Your task to perform on an android device: allow cookies in the chrome app Image 0: 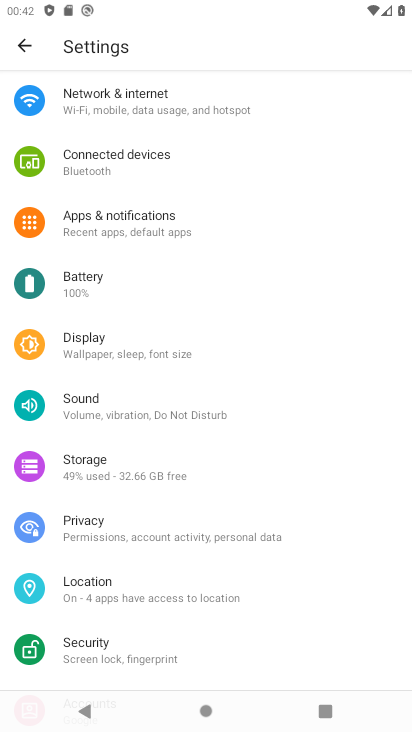
Step 0: press back button
Your task to perform on an android device: allow cookies in the chrome app Image 1: 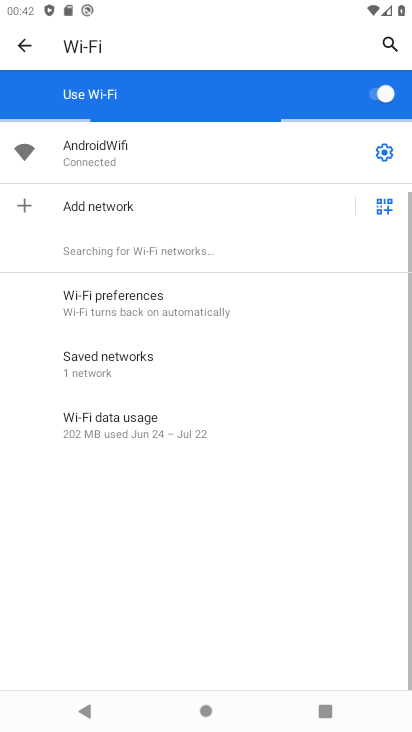
Step 1: press back button
Your task to perform on an android device: allow cookies in the chrome app Image 2: 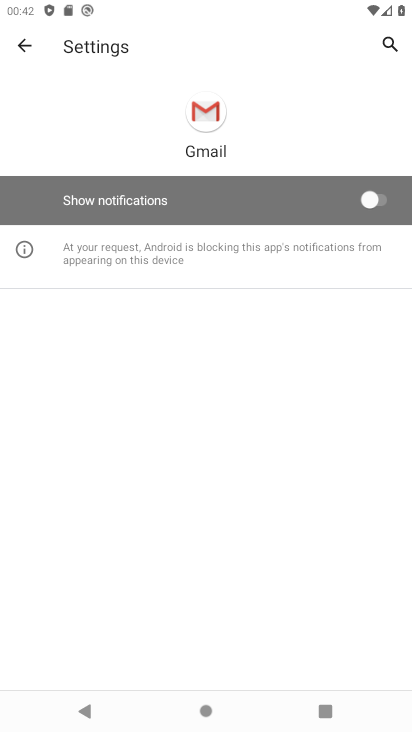
Step 2: press back button
Your task to perform on an android device: allow cookies in the chrome app Image 3: 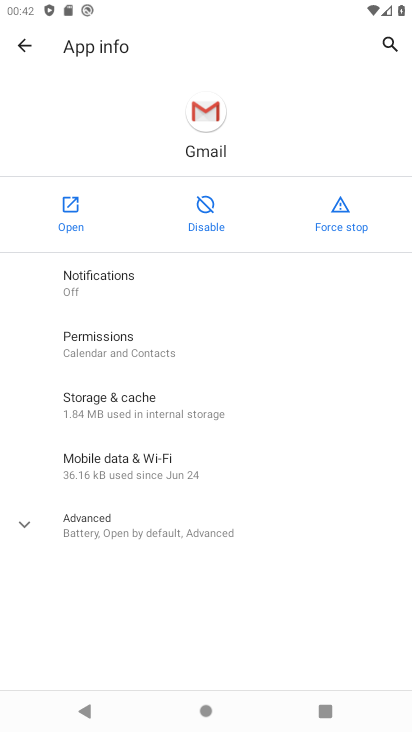
Step 3: press home button
Your task to perform on an android device: allow cookies in the chrome app Image 4: 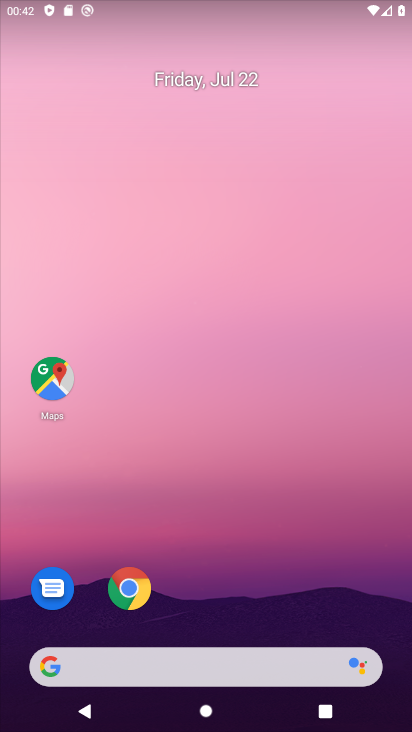
Step 4: click (137, 592)
Your task to perform on an android device: allow cookies in the chrome app Image 5: 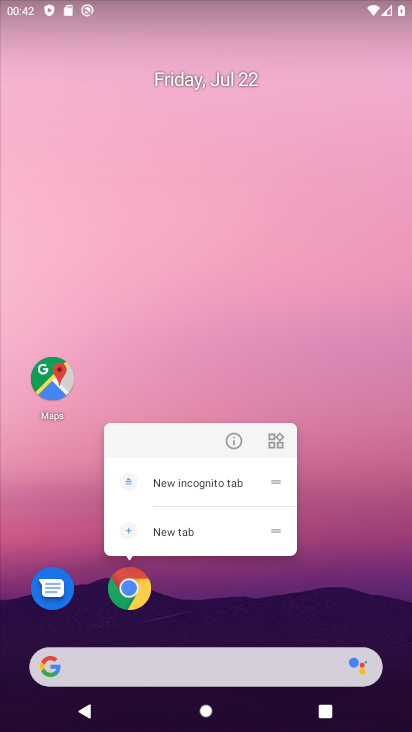
Step 5: click (135, 583)
Your task to perform on an android device: allow cookies in the chrome app Image 6: 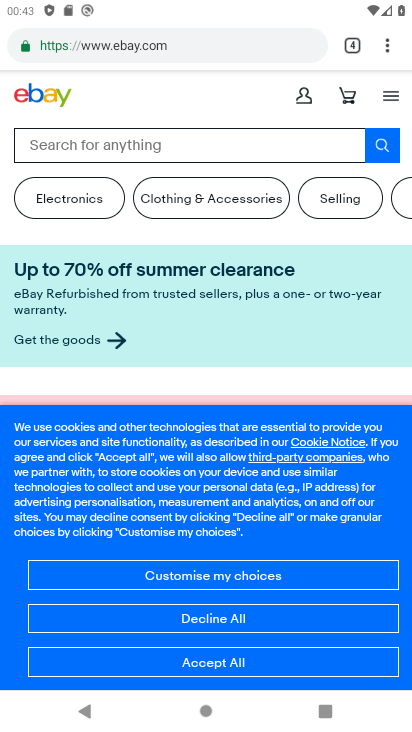
Step 6: drag from (392, 47) to (226, 549)
Your task to perform on an android device: allow cookies in the chrome app Image 7: 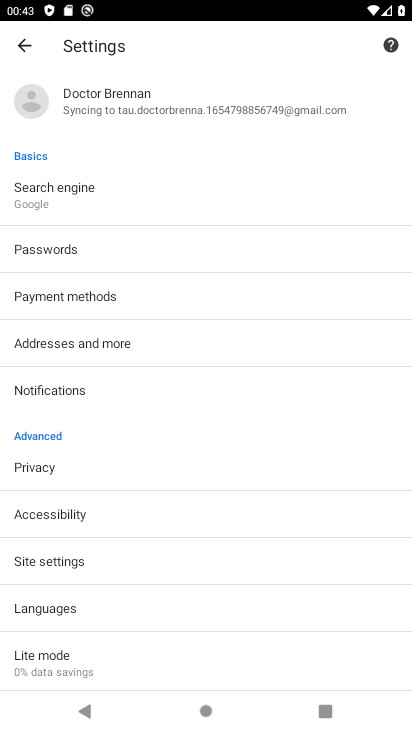
Step 7: click (84, 561)
Your task to perform on an android device: allow cookies in the chrome app Image 8: 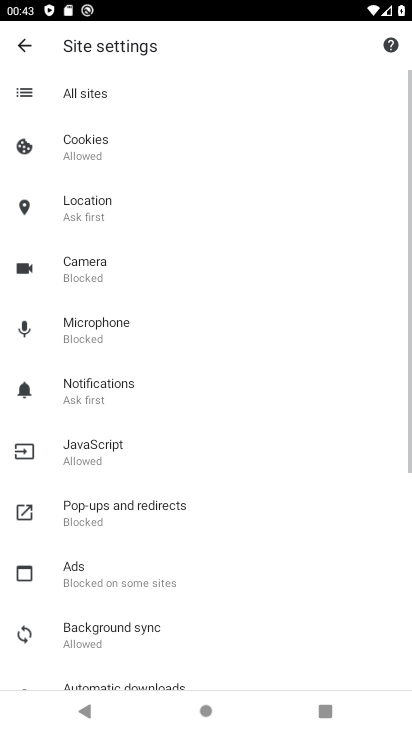
Step 8: click (85, 145)
Your task to perform on an android device: allow cookies in the chrome app Image 9: 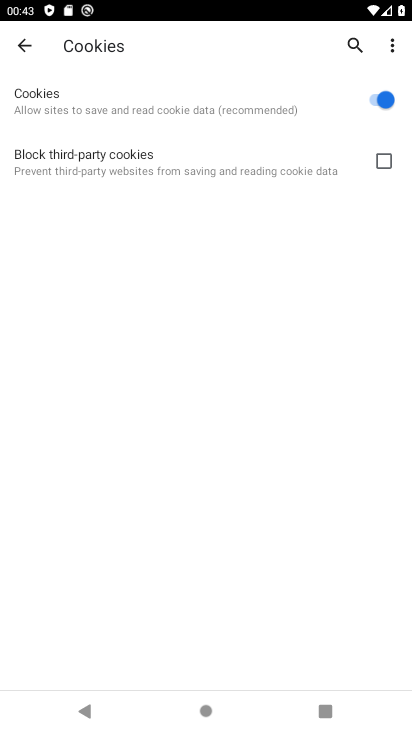
Step 9: task complete